Your task to perform on an android device: manage bookmarks in the chrome app Image 0: 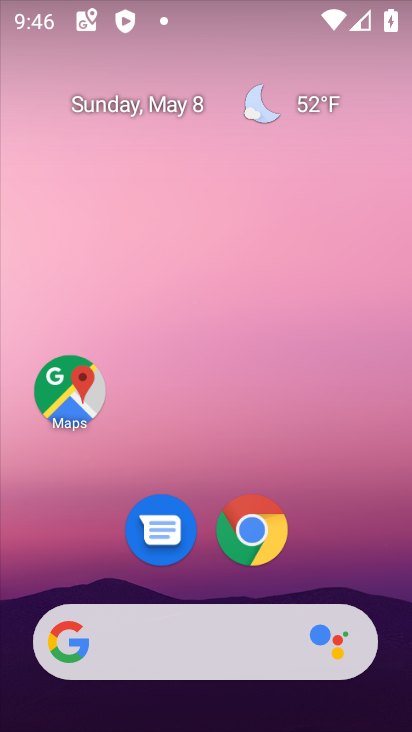
Step 0: drag from (354, 510) to (347, 182)
Your task to perform on an android device: manage bookmarks in the chrome app Image 1: 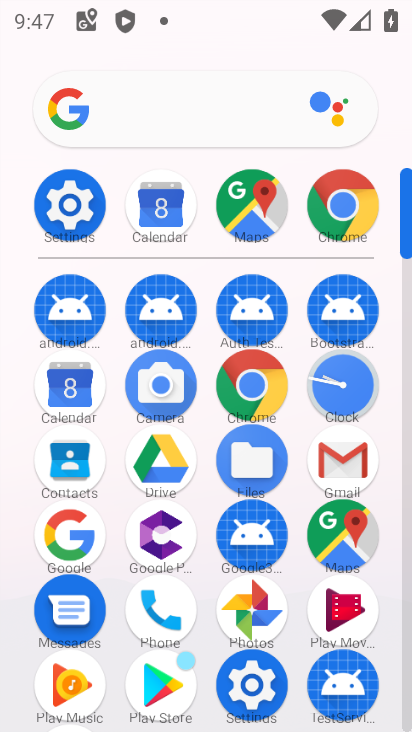
Step 1: click (265, 393)
Your task to perform on an android device: manage bookmarks in the chrome app Image 2: 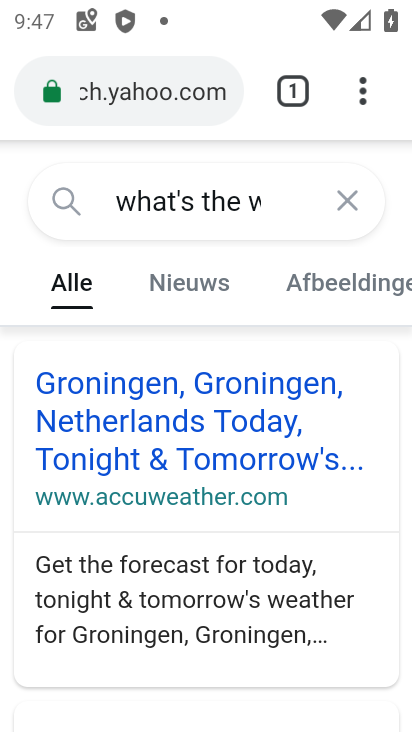
Step 2: drag from (365, 104) to (207, 357)
Your task to perform on an android device: manage bookmarks in the chrome app Image 3: 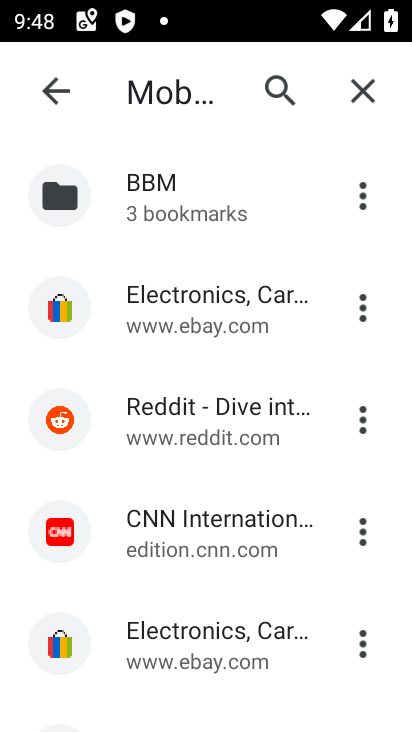
Step 3: click (358, 203)
Your task to perform on an android device: manage bookmarks in the chrome app Image 4: 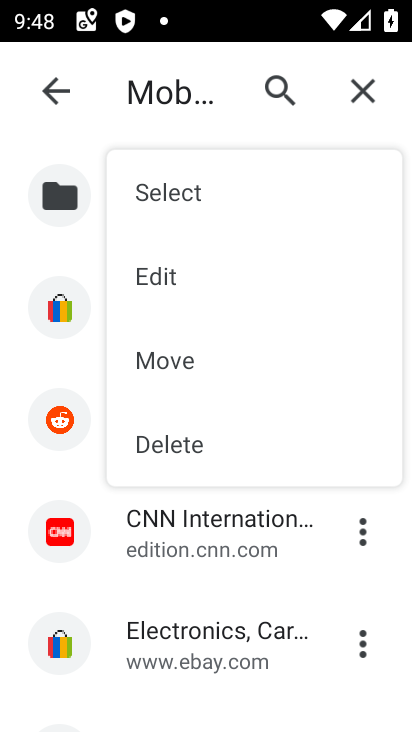
Step 4: click (195, 443)
Your task to perform on an android device: manage bookmarks in the chrome app Image 5: 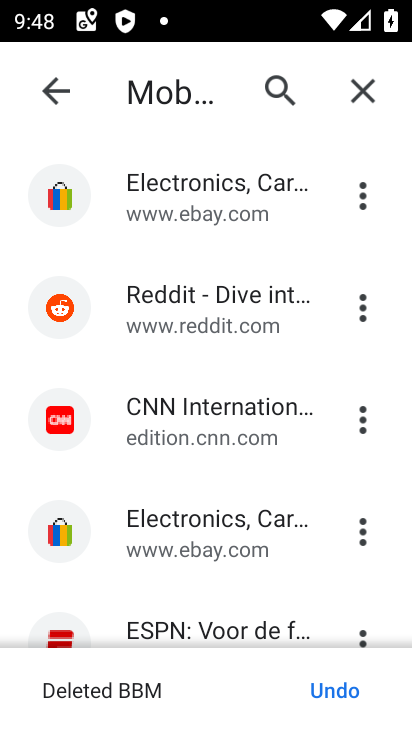
Step 5: task complete